Your task to perform on an android device: Find coffee shops on Maps Image 0: 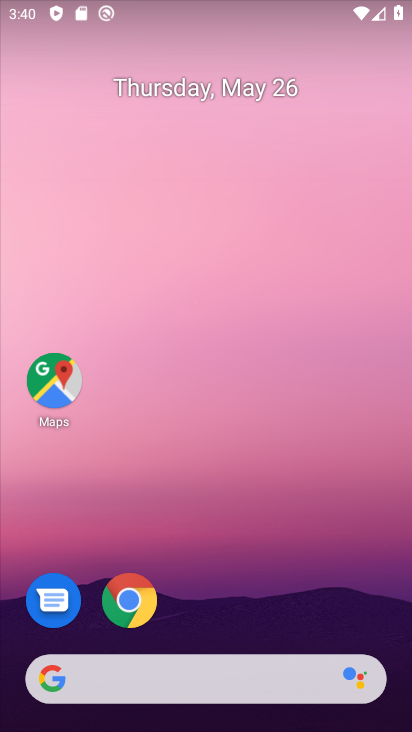
Step 0: click (67, 376)
Your task to perform on an android device: Find coffee shops on Maps Image 1: 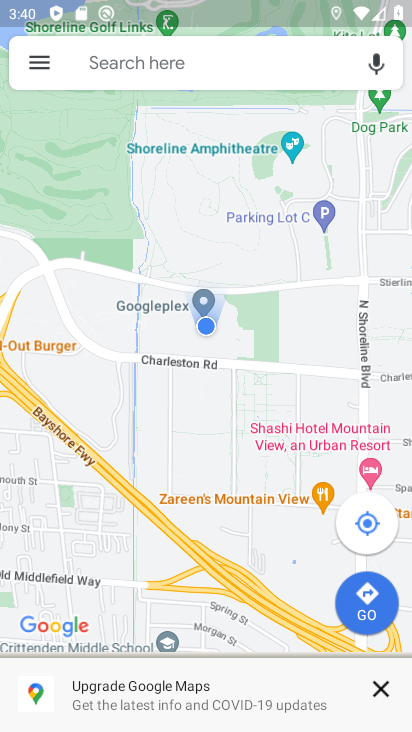
Step 1: click (250, 69)
Your task to perform on an android device: Find coffee shops on Maps Image 2: 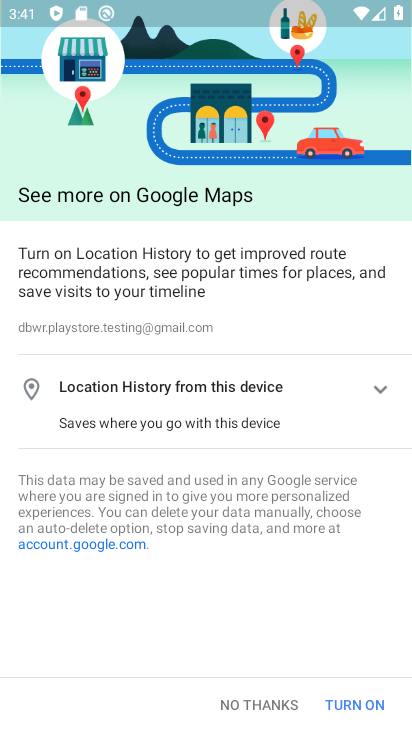
Step 2: type "coffee"
Your task to perform on an android device: Find coffee shops on Maps Image 3: 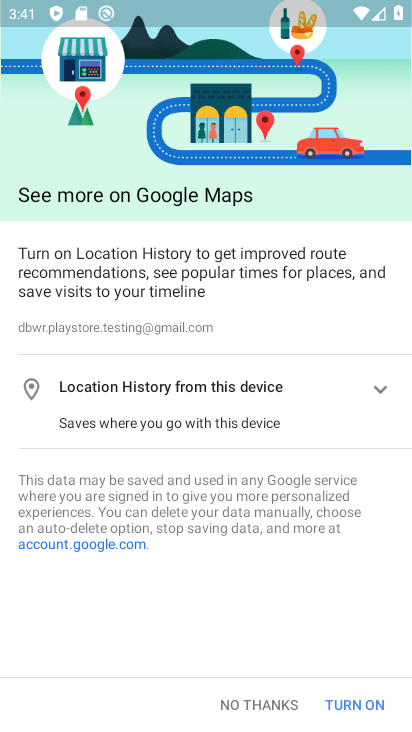
Step 3: click (254, 692)
Your task to perform on an android device: Find coffee shops on Maps Image 4: 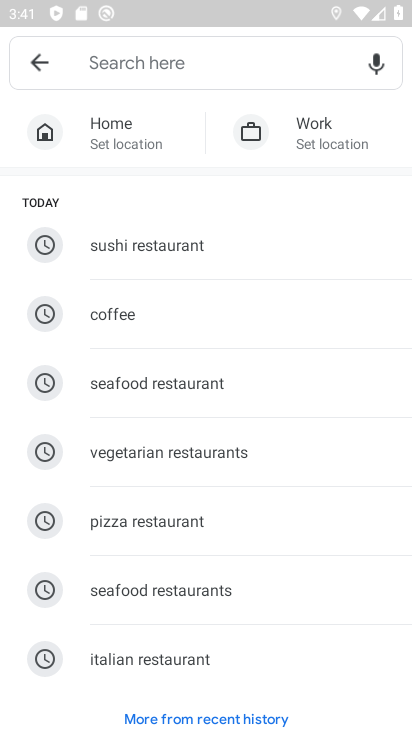
Step 4: click (215, 72)
Your task to perform on an android device: Find coffee shops on Maps Image 5: 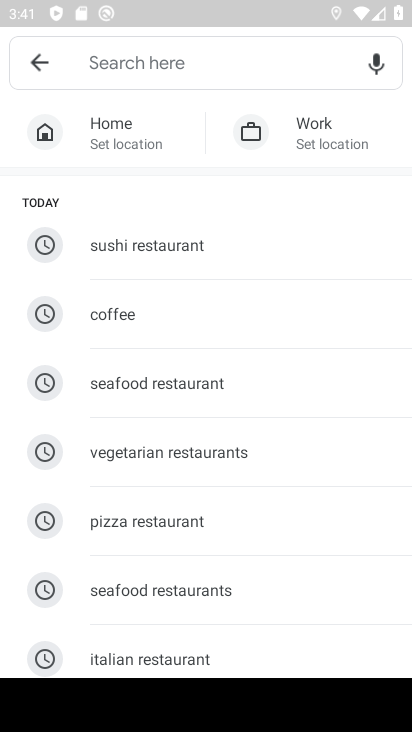
Step 5: type "coffee shops"
Your task to perform on an android device: Find coffee shops on Maps Image 6: 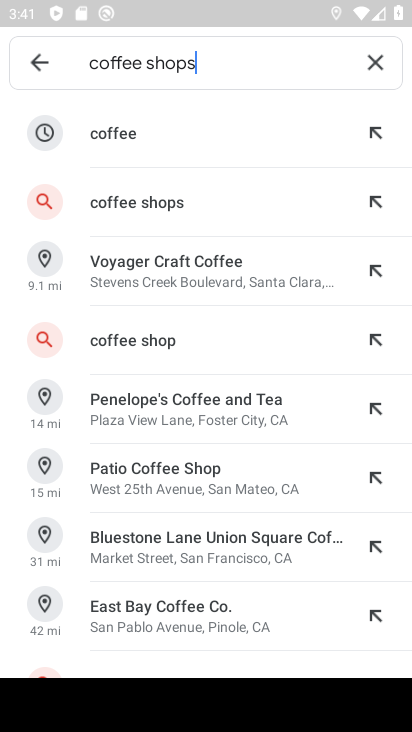
Step 6: click (189, 210)
Your task to perform on an android device: Find coffee shops on Maps Image 7: 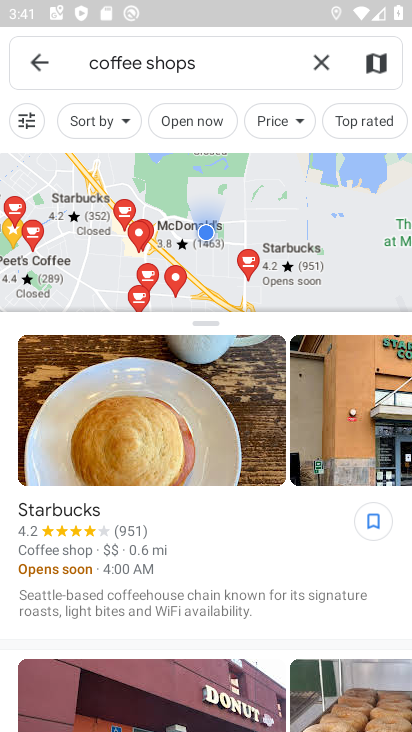
Step 7: task complete